Your task to perform on an android device: search for starred emails in the gmail app Image 0: 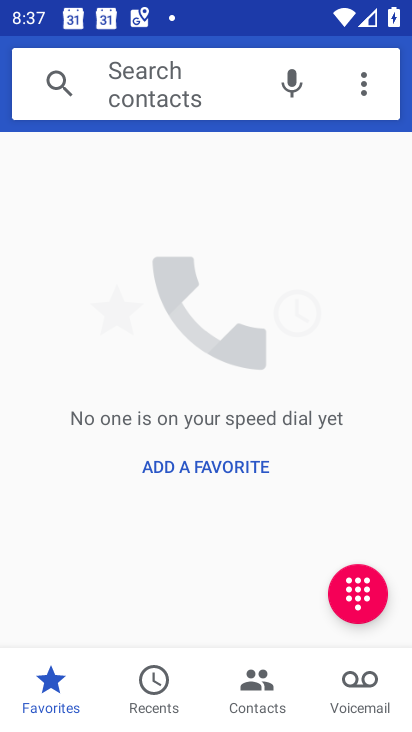
Step 0: press home button
Your task to perform on an android device: search for starred emails in the gmail app Image 1: 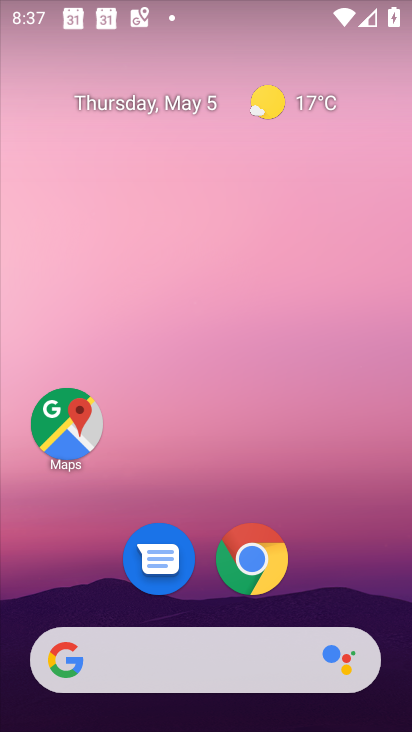
Step 1: drag from (388, 609) to (377, 189)
Your task to perform on an android device: search for starred emails in the gmail app Image 2: 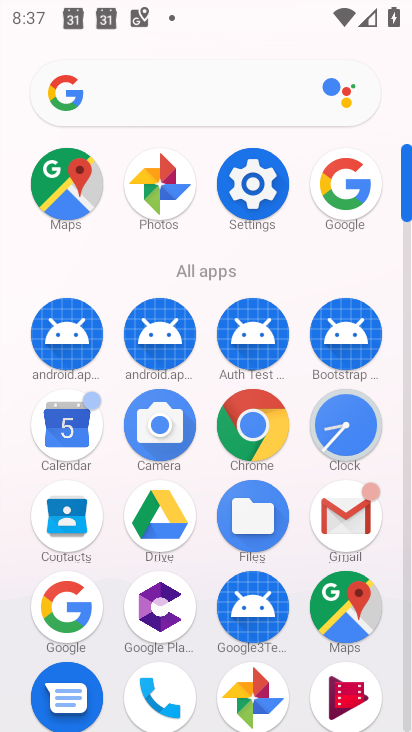
Step 2: click (342, 514)
Your task to perform on an android device: search for starred emails in the gmail app Image 3: 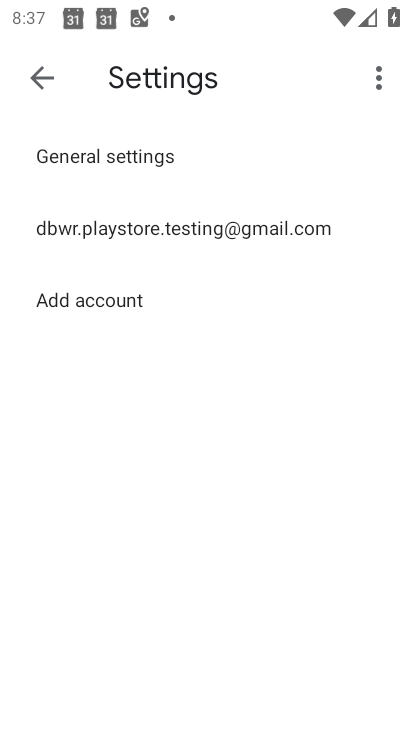
Step 3: click (41, 75)
Your task to perform on an android device: search for starred emails in the gmail app Image 4: 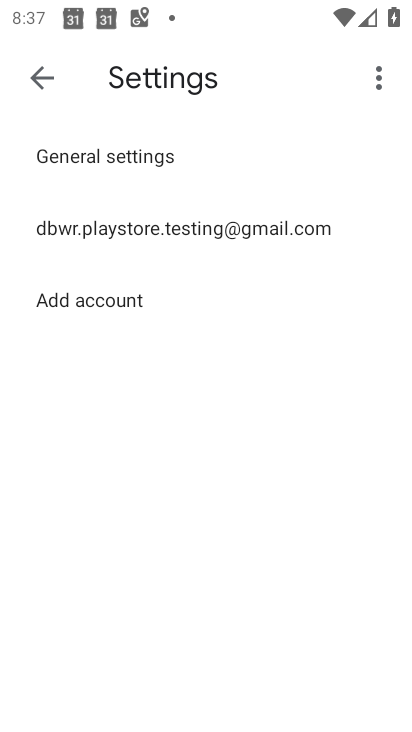
Step 4: click (38, 81)
Your task to perform on an android device: search for starred emails in the gmail app Image 5: 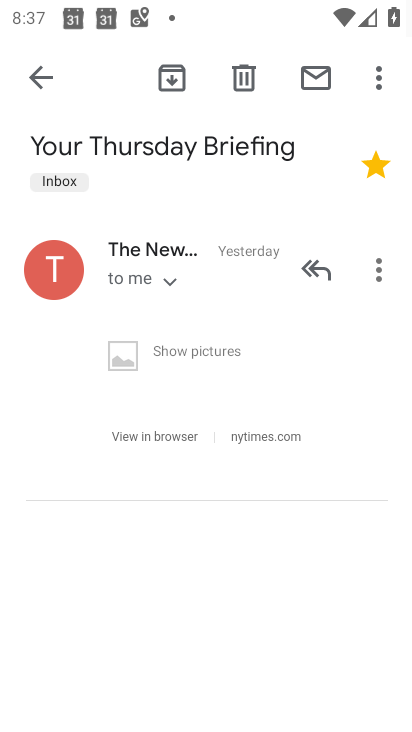
Step 5: click (41, 83)
Your task to perform on an android device: search for starred emails in the gmail app Image 6: 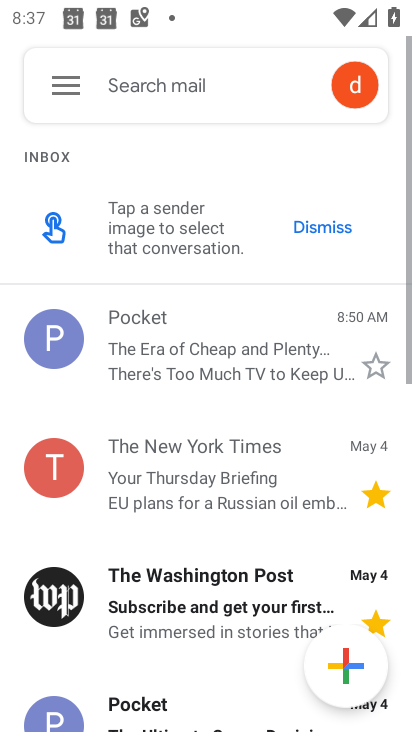
Step 6: click (74, 86)
Your task to perform on an android device: search for starred emails in the gmail app Image 7: 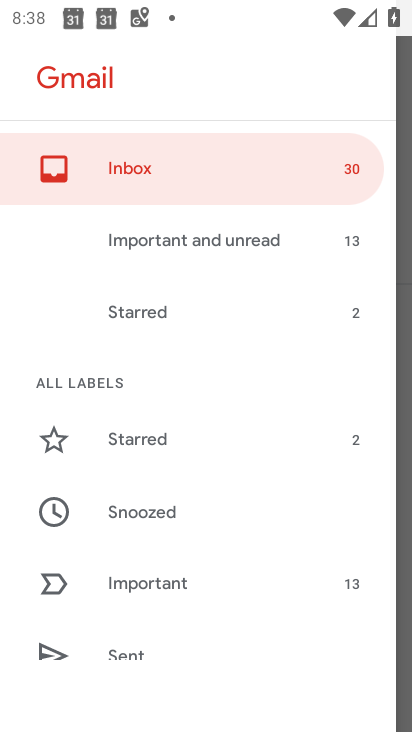
Step 7: click (127, 440)
Your task to perform on an android device: search for starred emails in the gmail app Image 8: 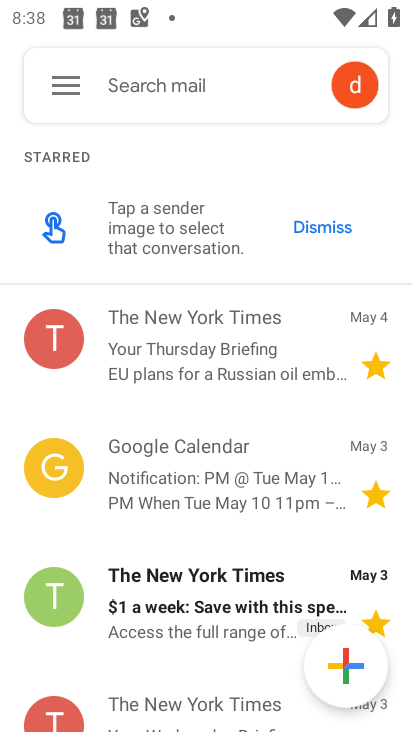
Step 8: task complete